Your task to perform on an android device: Add duracell triple a to the cart on costco.com, then select checkout. Image 0: 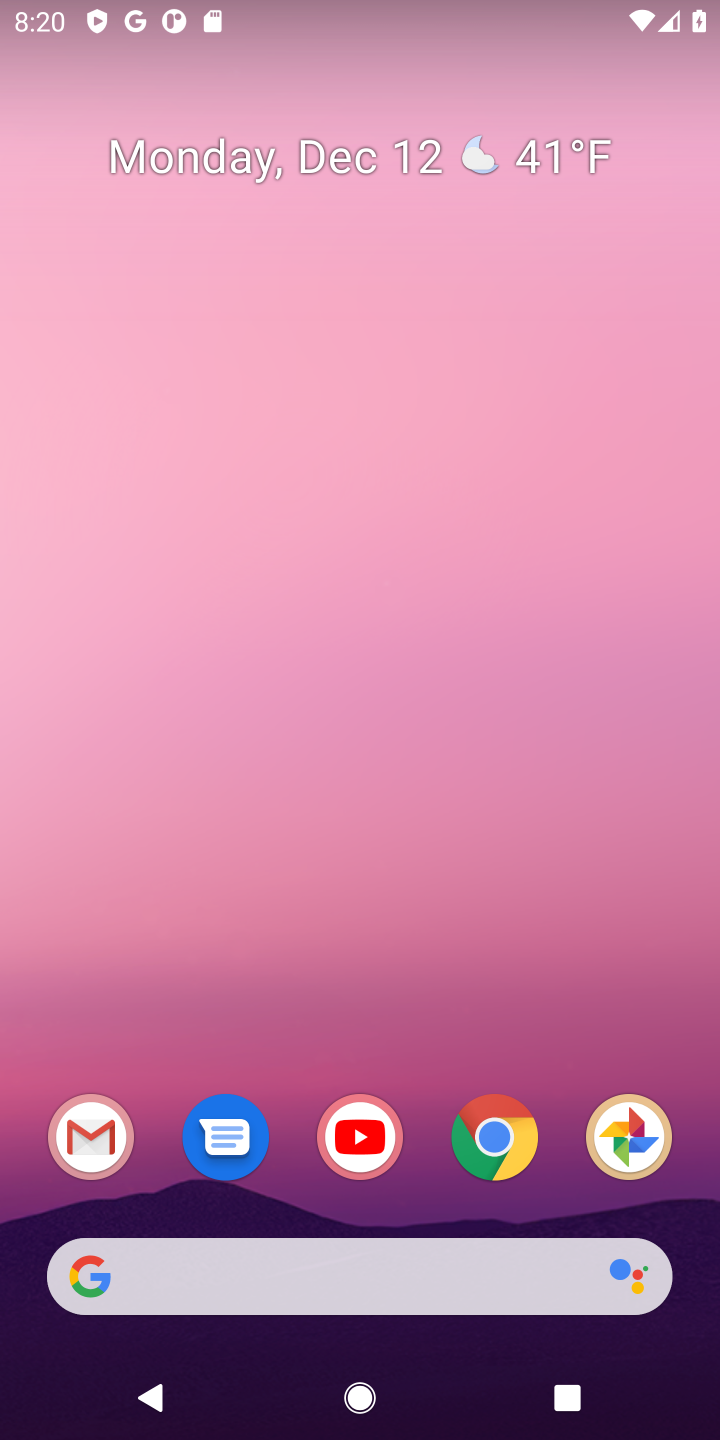
Step 0: click (490, 1131)
Your task to perform on an android device: Add duracell triple a to the cart on costco.com, then select checkout. Image 1: 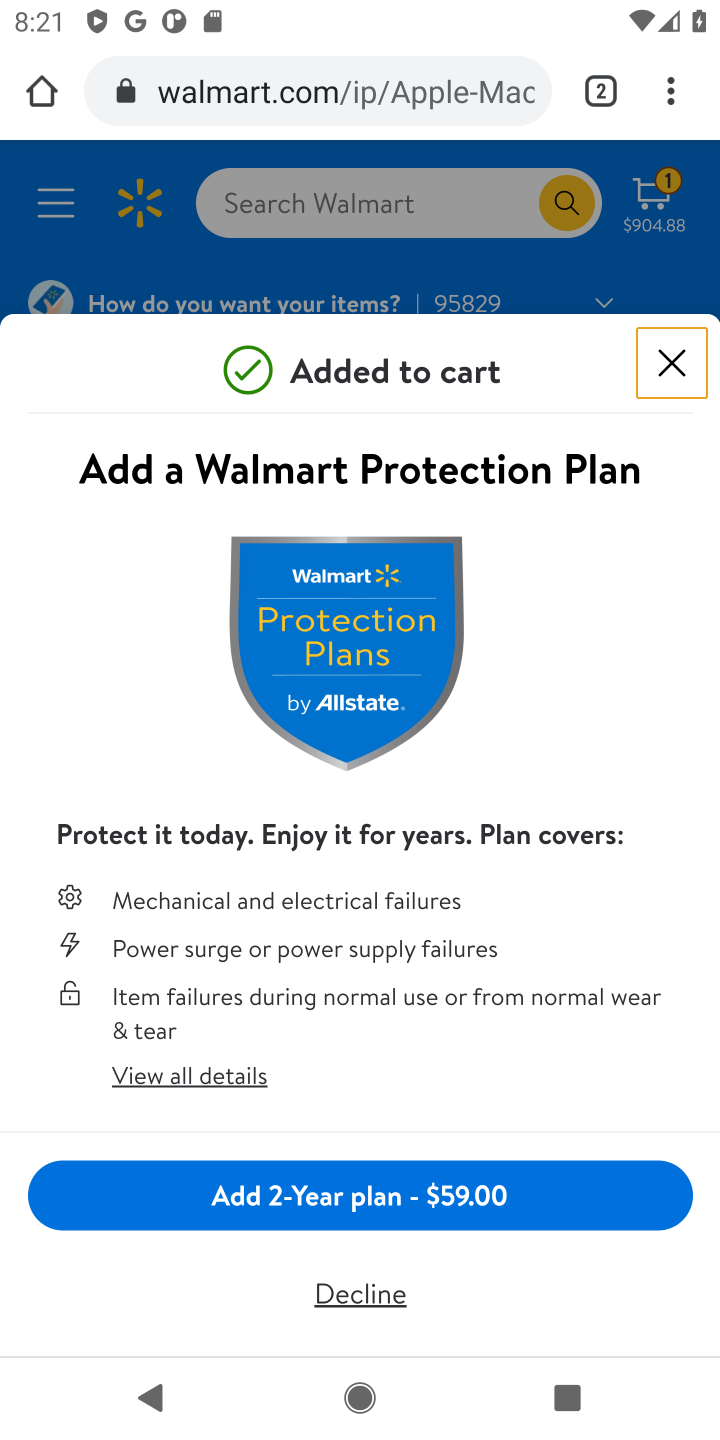
Step 1: click (672, 362)
Your task to perform on an android device: Add duracell triple a to the cart on costco.com, then select checkout. Image 2: 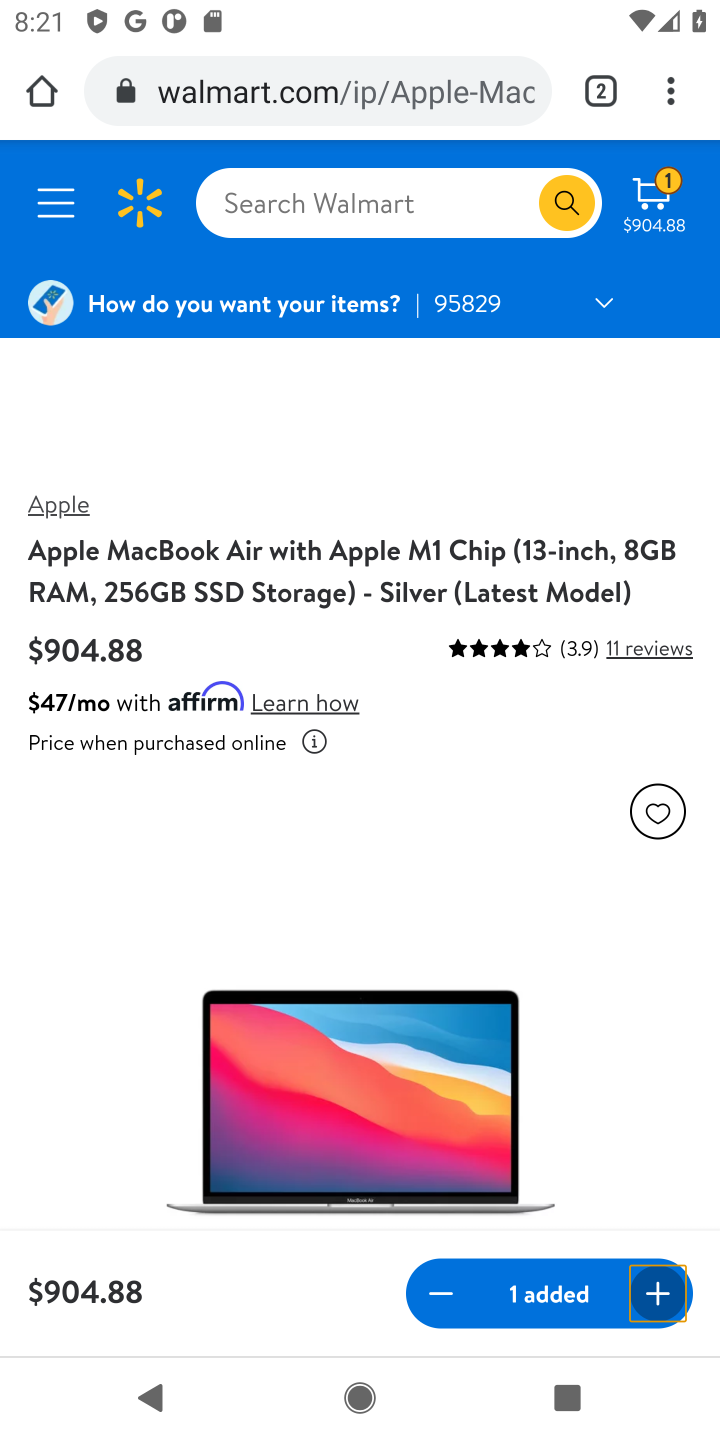
Step 2: click (400, 100)
Your task to perform on an android device: Add duracell triple a to the cart on costco.com, then select checkout. Image 3: 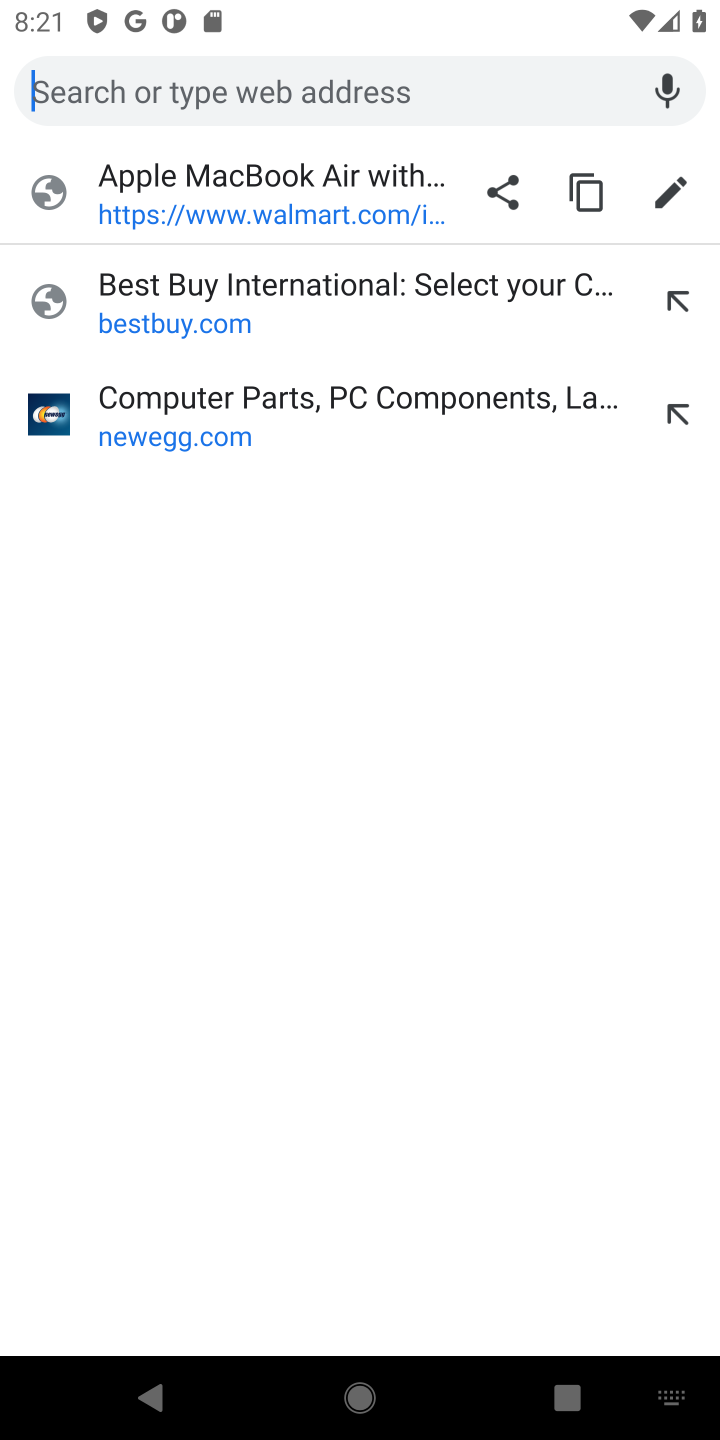
Step 3: type "costco"
Your task to perform on an android device: Add duracell triple a to the cart on costco.com, then select checkout. Image 4: 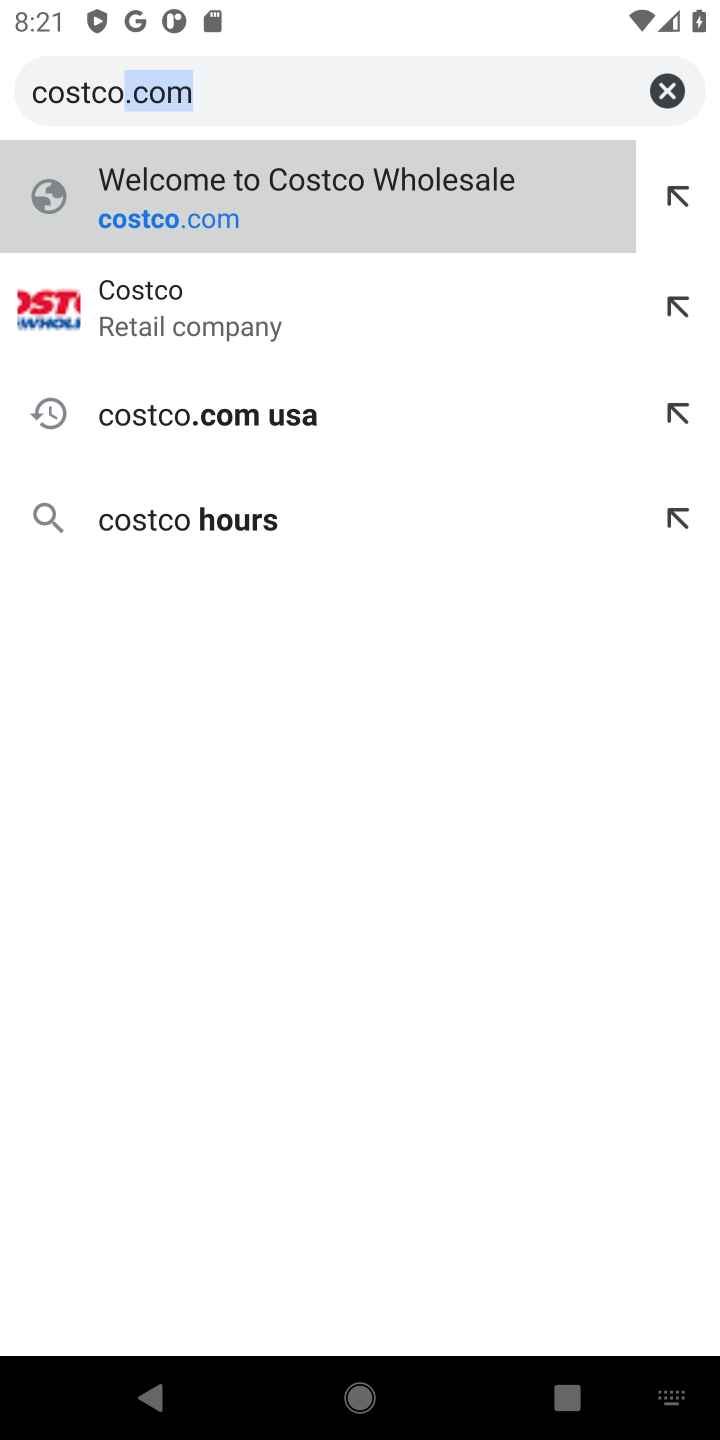
Step 4: click (239, 225)
Your task to perform on an android device: Add duracell triple a to the cart on costco.com, then select checkout. Image 5: 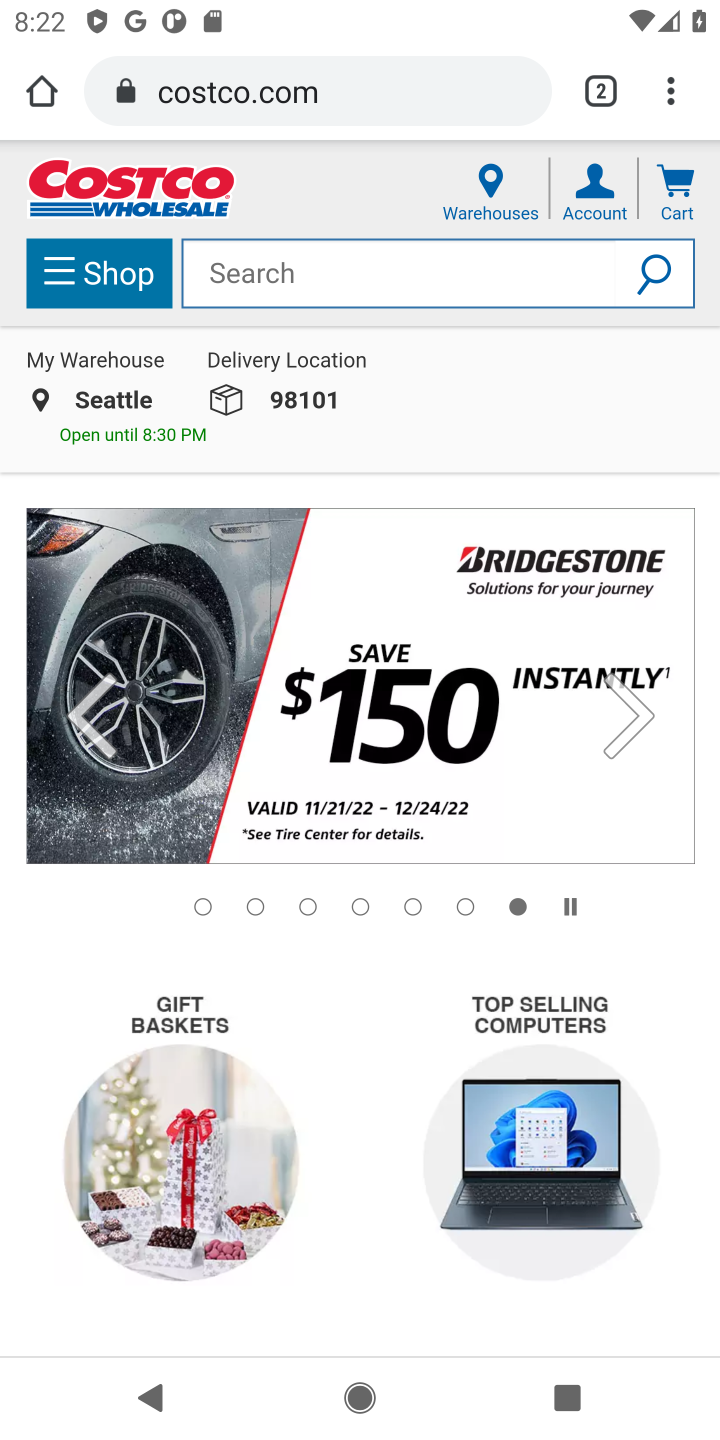
Step 5: click (313, 272)
Your task to perform on an android device: Add duracell triple a to the cart on costco.com, then select checkout. Image 6: 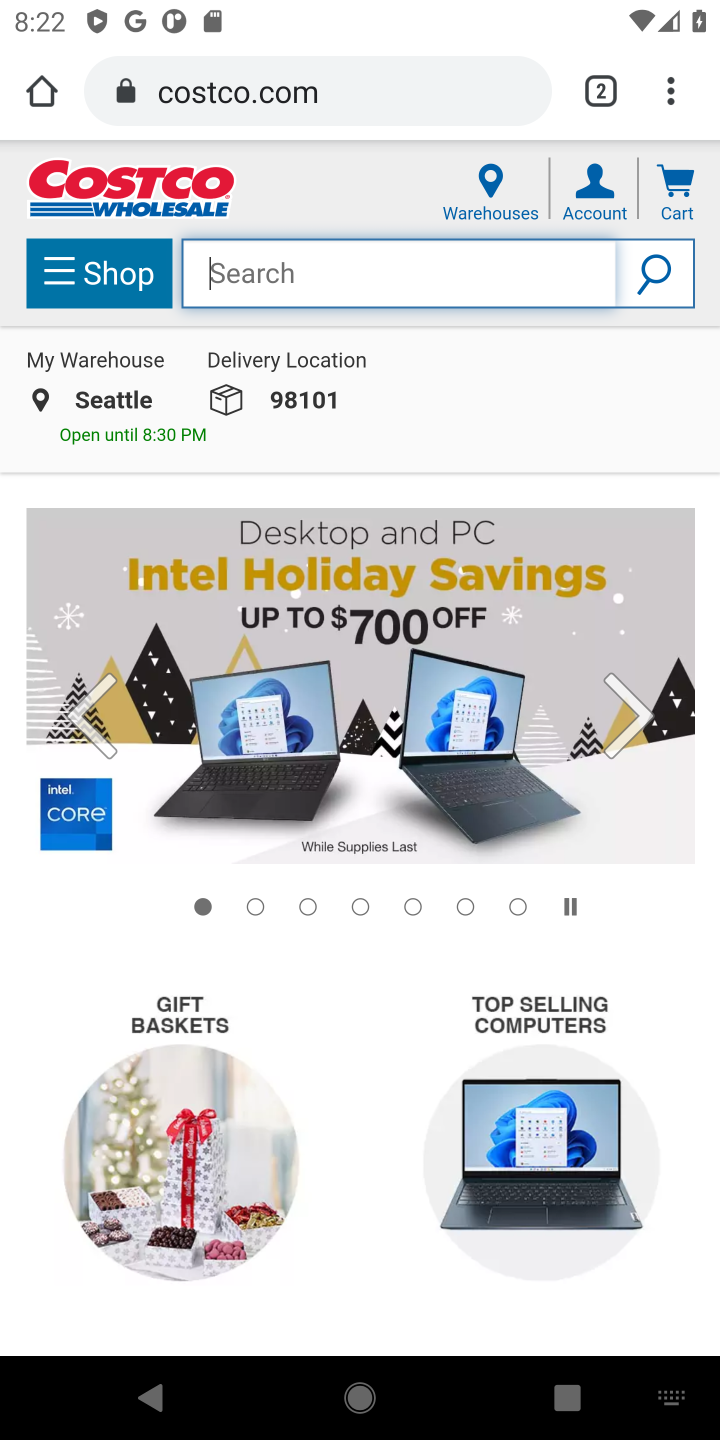
Step 6: type "duracell triple a"
Your task to perform on an android device: Add duracell triple a to the cart on costco.com, then select checkout. Image 7: 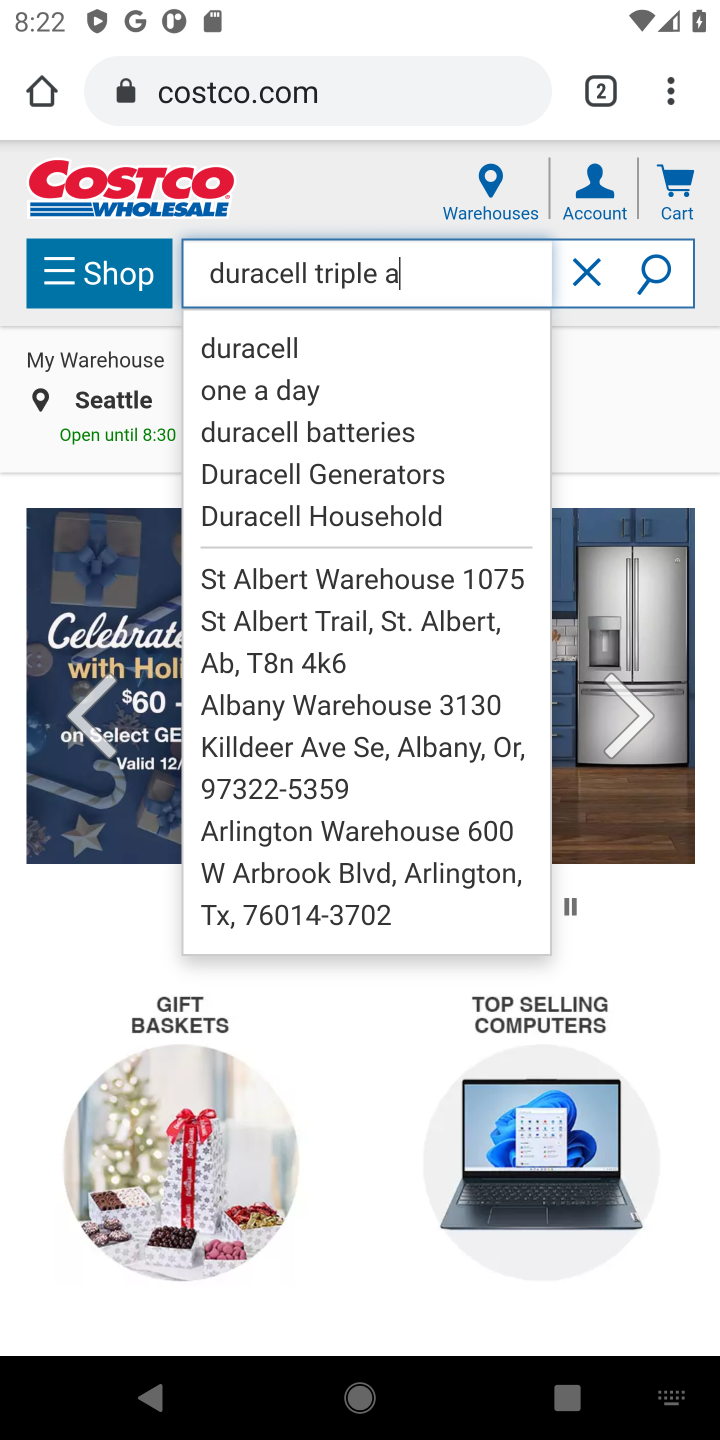
Step 7: click (308, 346)
Your task to perform on an android device: Add duracell triple a to the cart on costco.com, then select checkout. Image 8: 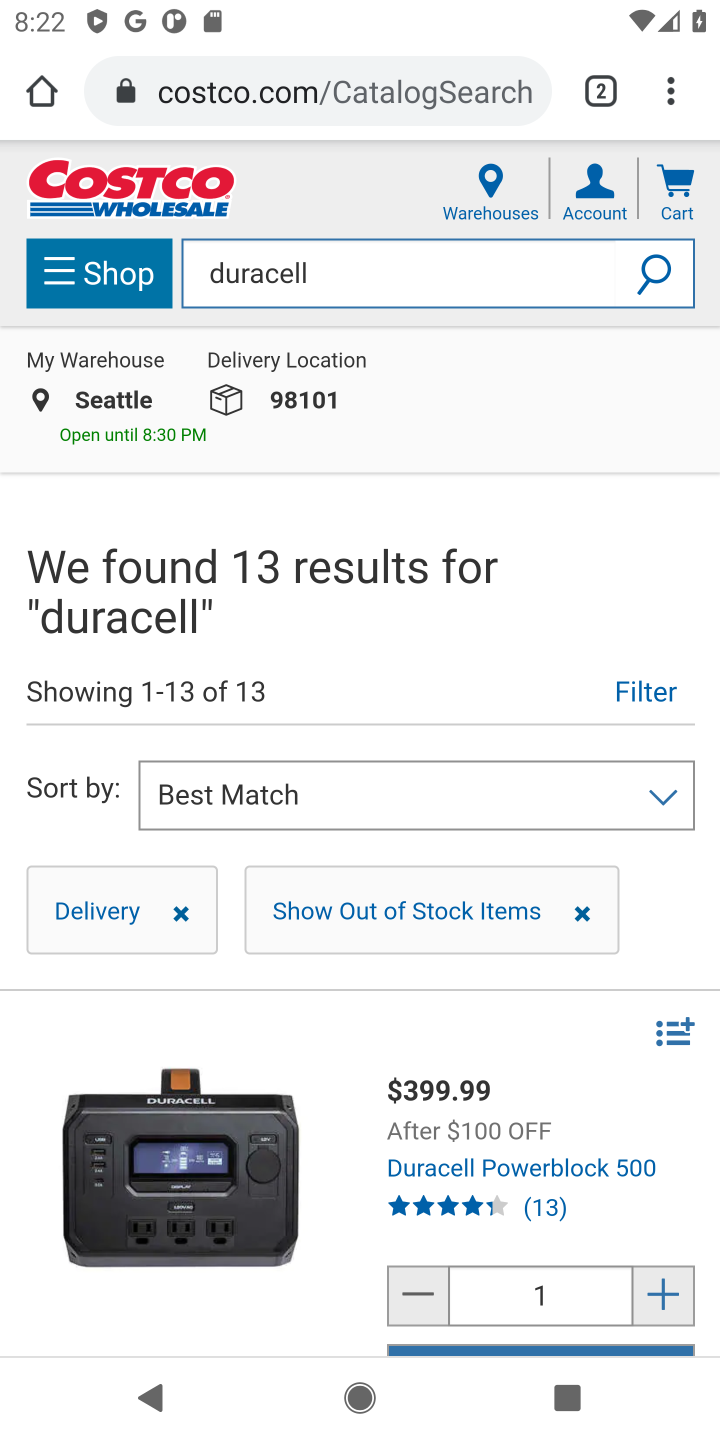
Step 8: drag from (566, 1167) to (507, 572)
Your task to perform on an android device: Add duracell triple a to the cart on costco.com, then select checkout. Image 9: 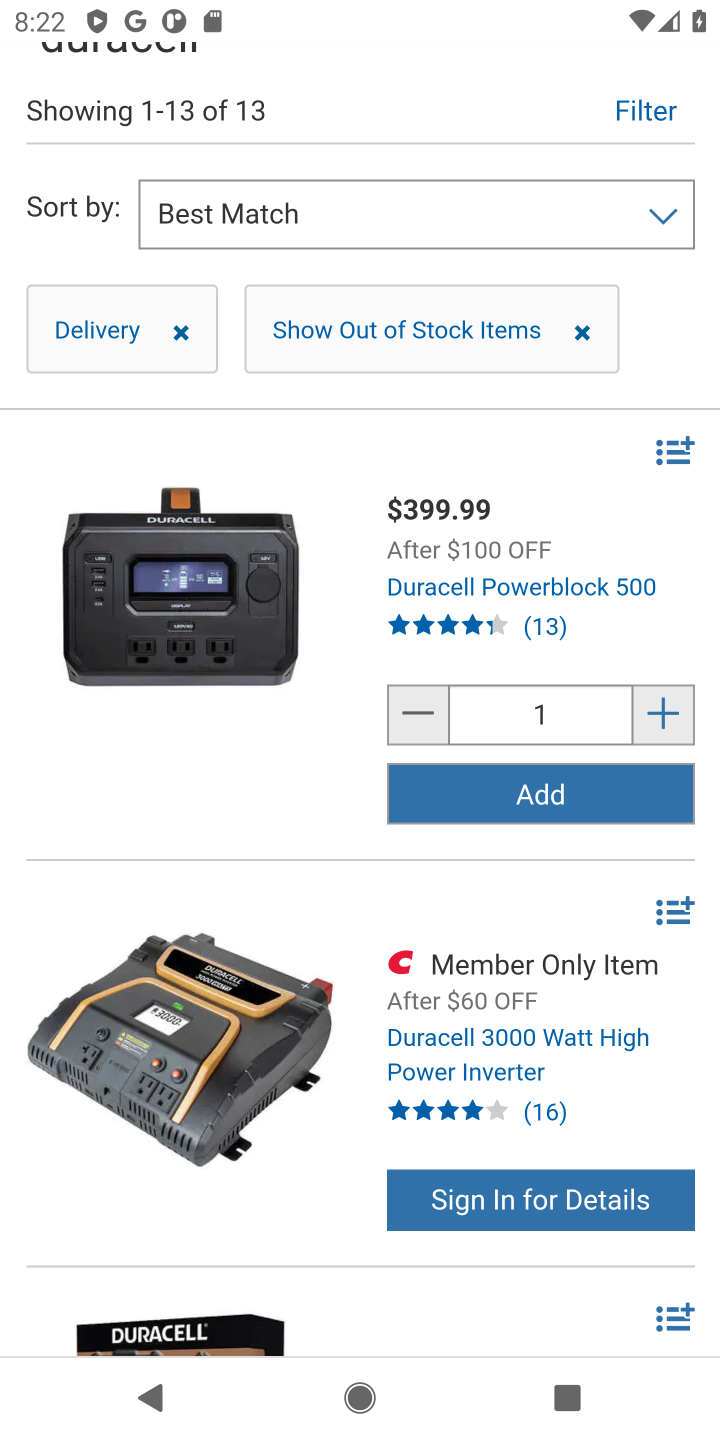
Step 9: click (552, 797)
Your task to perform on an android device: Add duracell triple a to the cart on costco.com, then select checkout. Image 10: 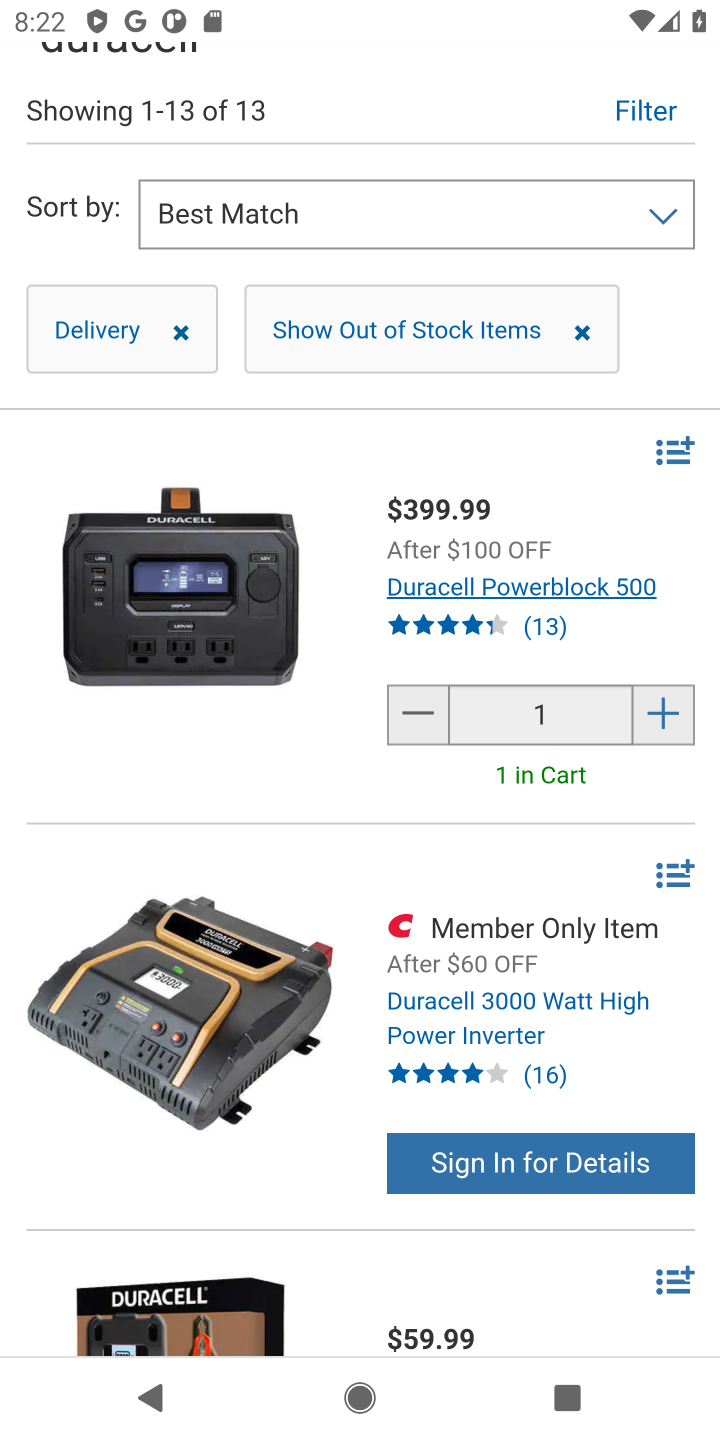
Step 10: drag from (562, 253) to (542, 1054)
Your task to perform on an android device: Add duracell triple a to the cart on costco.com, then select checkout. Image 11: 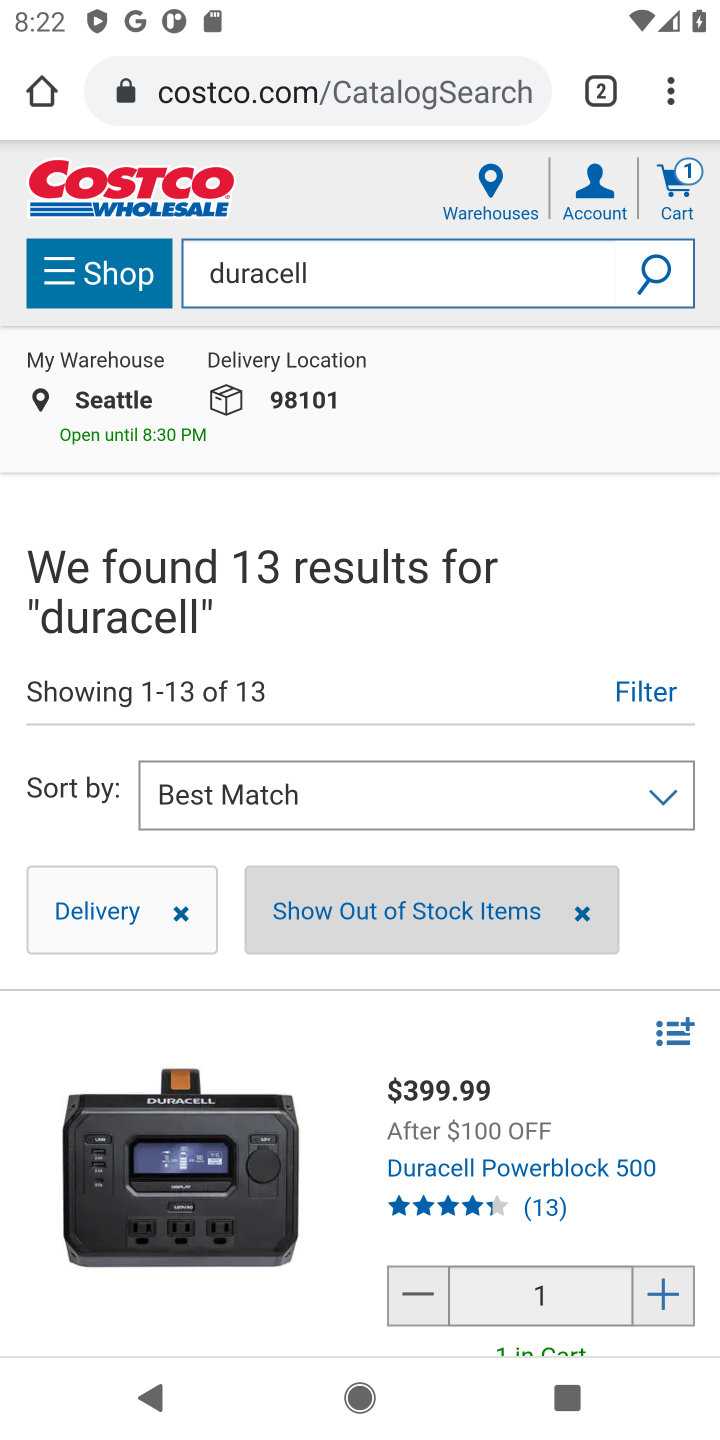
Step 11: click (685, 180)
Your task to perform on an android device: Add duracell triple a to the cart on costco.com, then select checkout. Image 12: 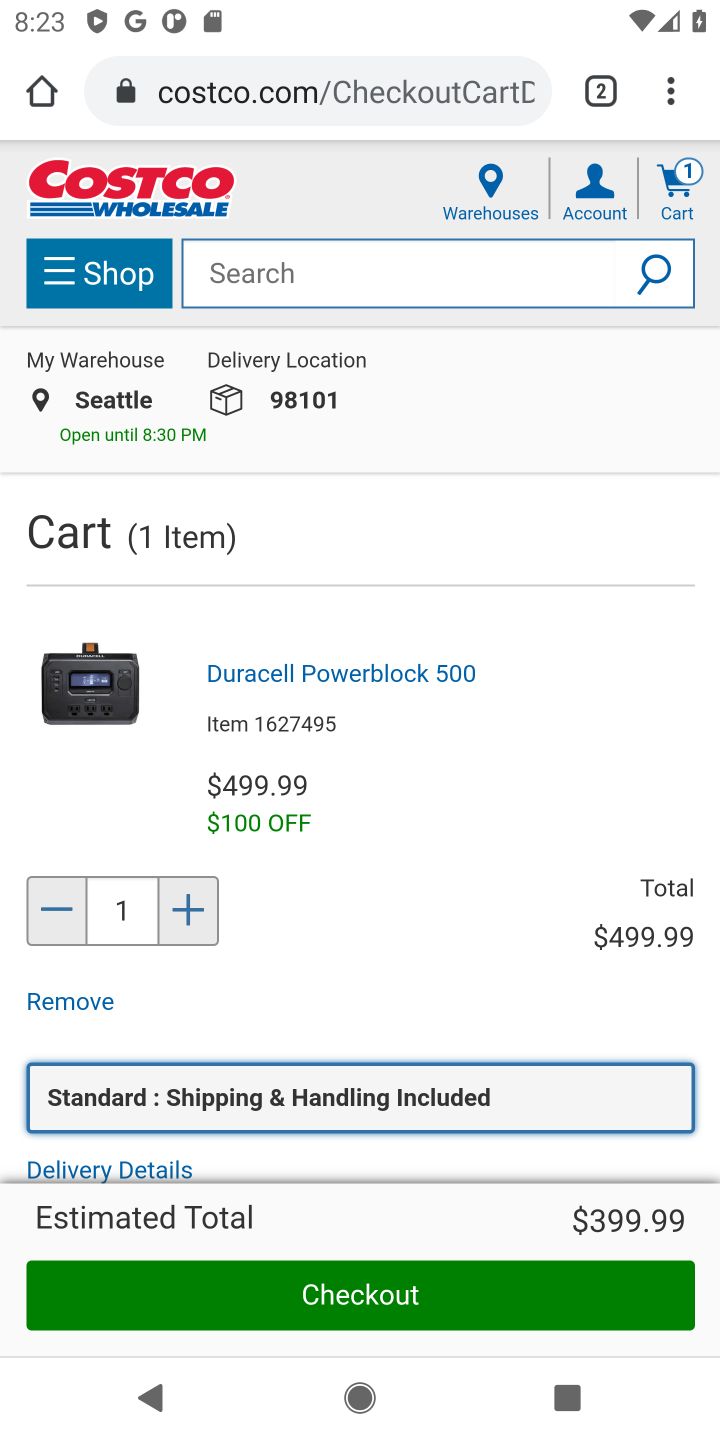
Step 12: click (399, 1302)
Your task to perform on an android device: Add duracell triple a to the cart on costco.com, then select checkout. Image 13: 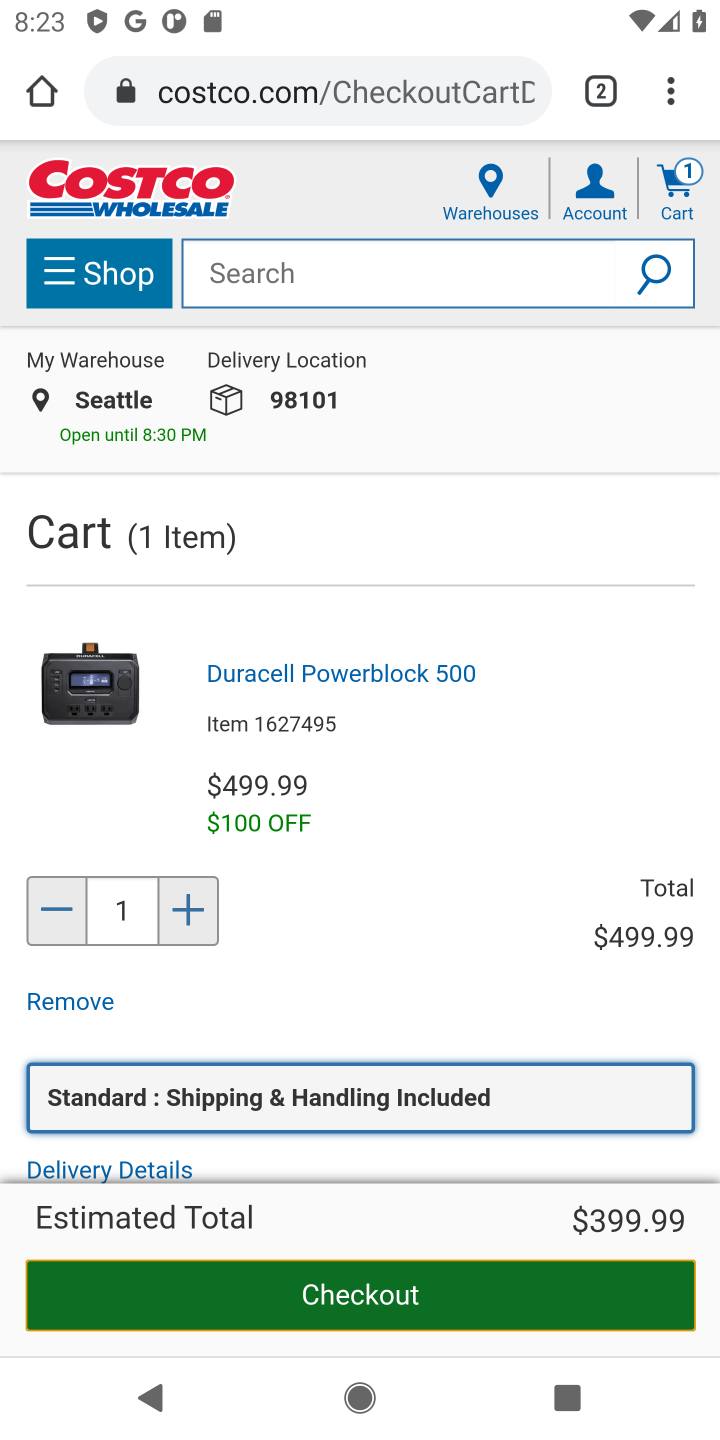
Step 13: task complete